Your task to perform on an android device: toggle data saver in the chrome app Image 0: 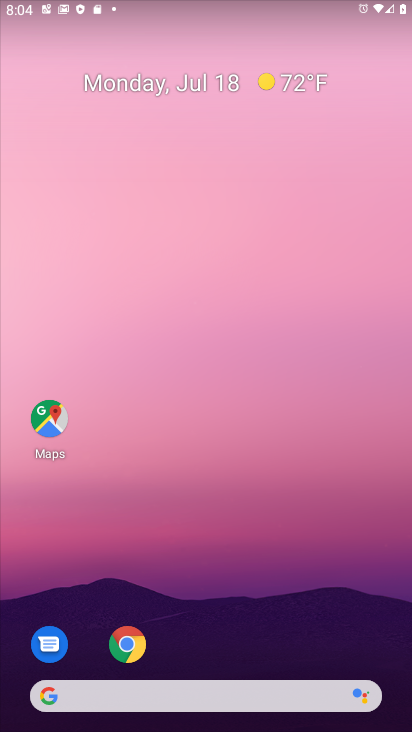
Step 0: drag from (389, 665) to (192, 79)
Your task to perform on an android device: toggle data saver in the chrome app Image 1: 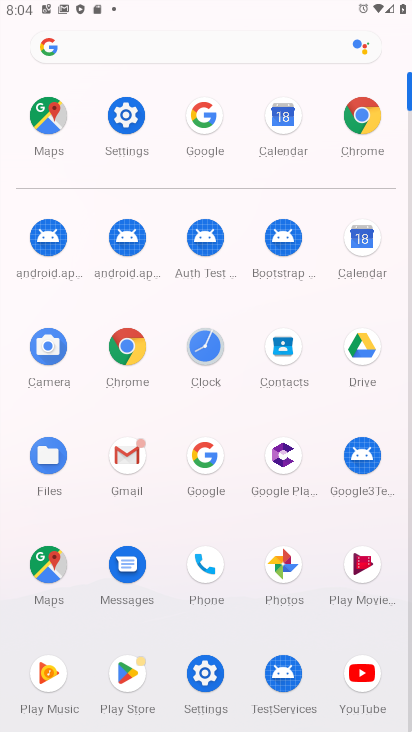
Step 1: click (375, 106)
Your task to perform on an android device: toggle data saver in the chrome app Image 2: 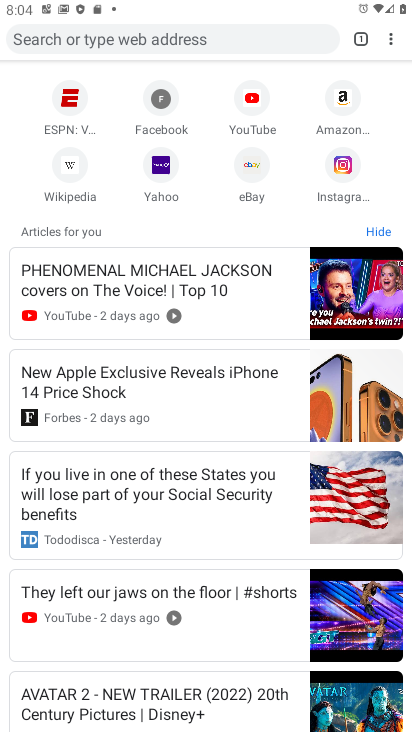
Step 2: click (391, 35)
Your task to perform on an android device: toggle data saver in the chrome app Image 3: 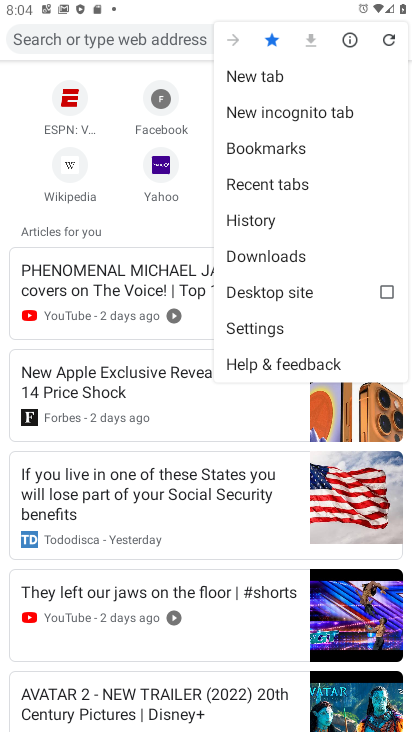
Step 3: click (268, 330)
Your task to perform on an android device: toggle data saver in the chrome app Image 4: 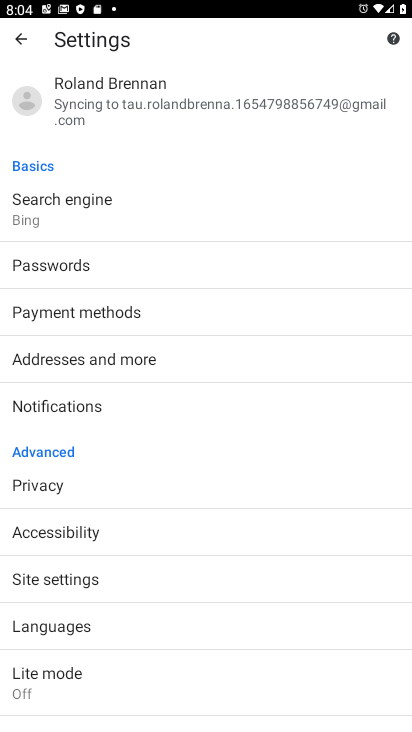
Step 4: click (73, 676)
Your task to perform on an android device: toggle data saver in the chrome app Image 5: 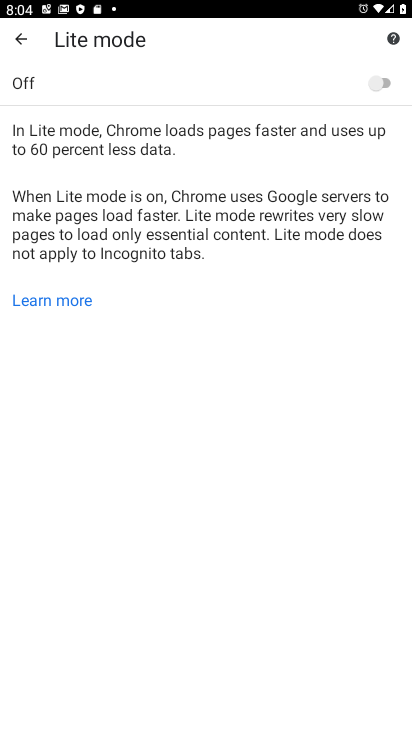
Step 5: click (369, 98)
Your task to perform on an android device: toggle data saver in the chrome app Image 6: 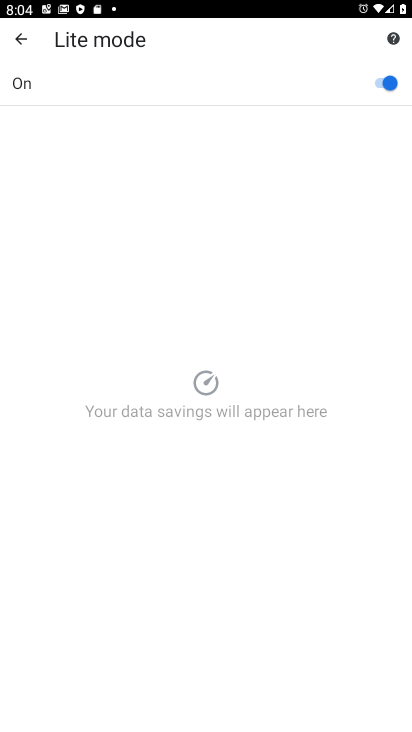
Step 6: task complete